Your task to perform on an android device: manage bookmarks in the chrome app Image 0: 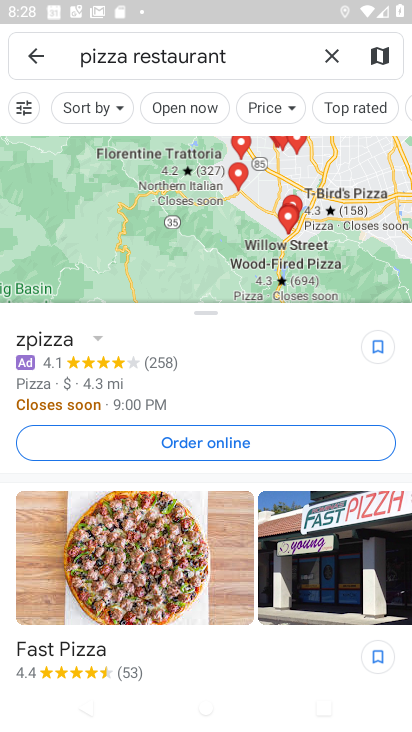
Step 0: drag from (222, 403) to (271, 122)
Your task to perform on an android device: manage bookmarks in the chrome app Image 1: 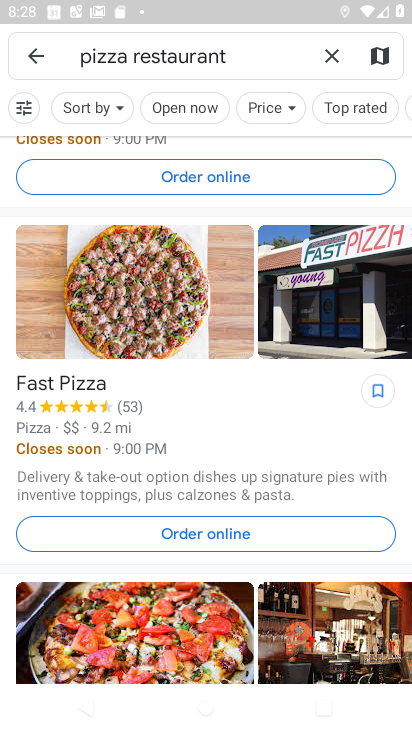
Step 1: press home button
Your task to perform on an android device: manage bookmarks in the chrome app Image 2: 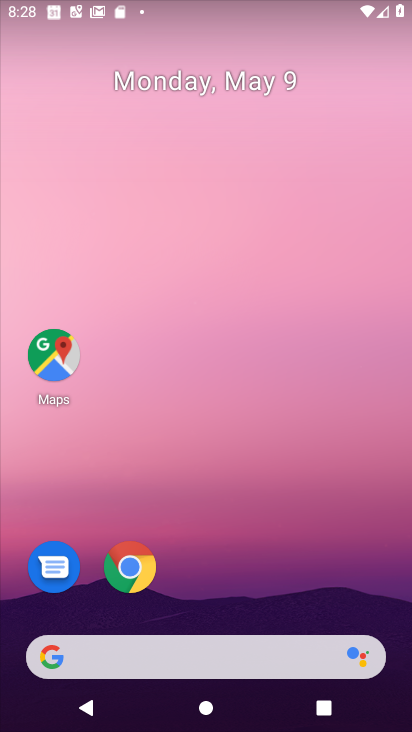
Step 2: drag from (195, 618) to (251, 192)
Your task to perform on an android device: manage bookmarks in the chrome app Image 3: 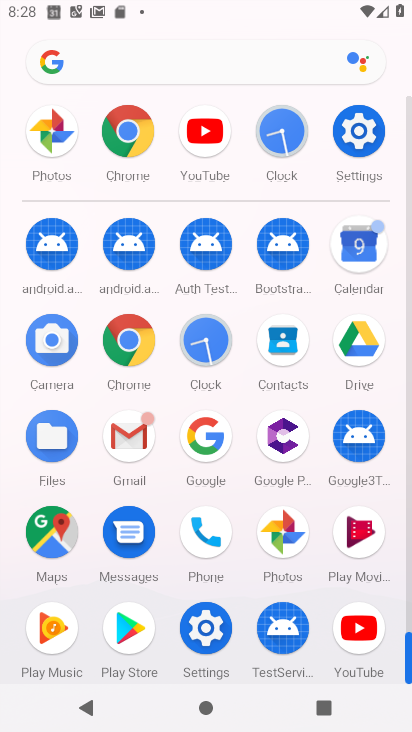
Step 3: click (123, 334)
Your task to perform on an android device: manage bookmarks in the chrome app Image 4: 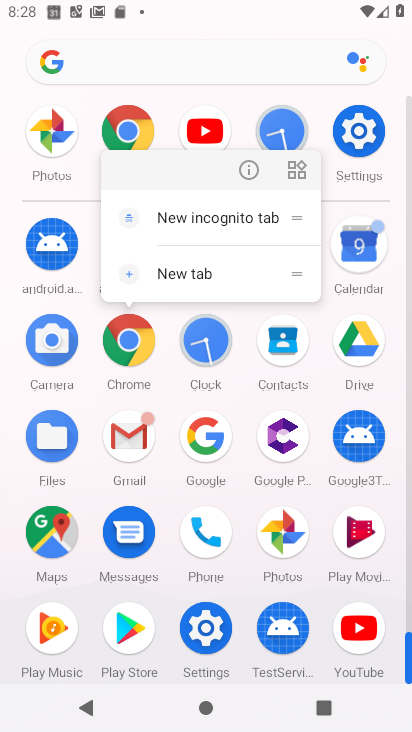
Step 4: click (249, 168)
Your task to perform on an android device: manage bookmarks in the chrome app Image 5: 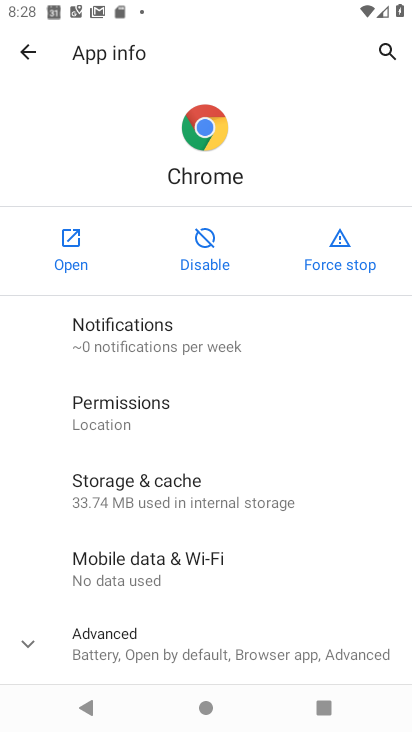
Step 5: click (80, 256)
Your task to perform on an android device: manage bookmarks in the chrome app Image 6: 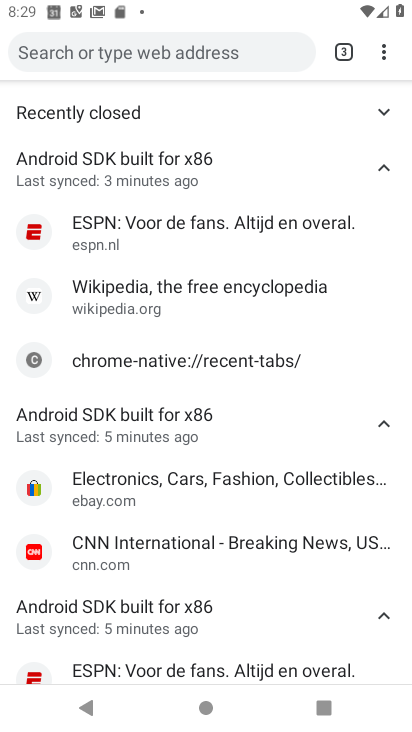
Step 6: drag from (394, 54) to (218, 201)
Your task to perform on an android device: manage bookmarks in the chrome app Image 7: 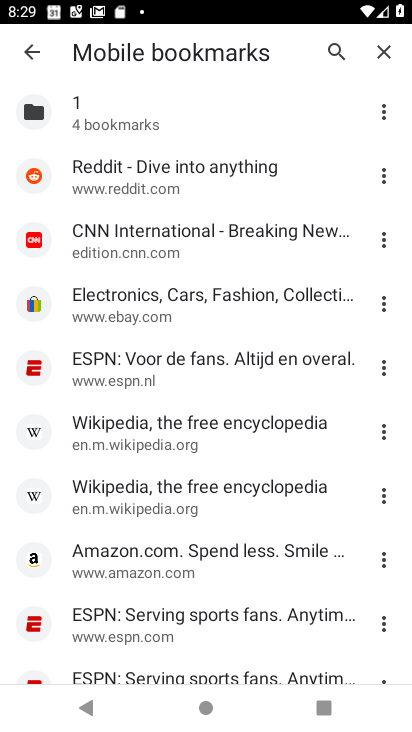
Step 7: click (384, 233)
Your task to perform on an android device: manage bookmarks in the chrome app Image 8: 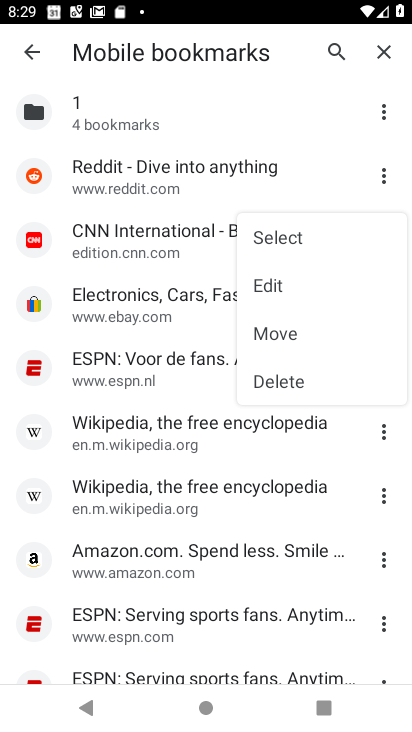
Step 8: click (288, 337)
Your task to perform on an android device: manage bookmarks in the chrome app Image 9: 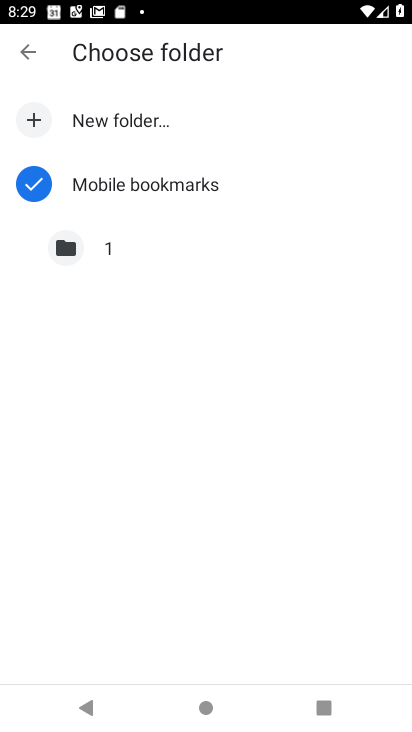
Step 9: click (145, 248)
Your task to perform on an android device: manage bookmarks in the chrome app Image 10: 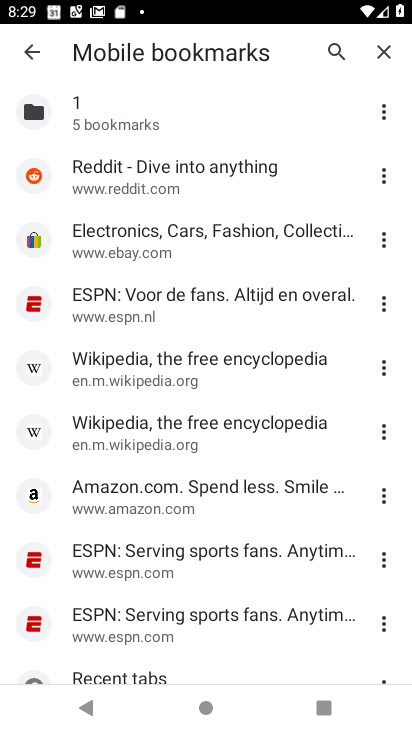
Step 10: task complete